Your task to perform on an android device: Open the calendar app, open the side menu, and click the "Day" option Image 0: 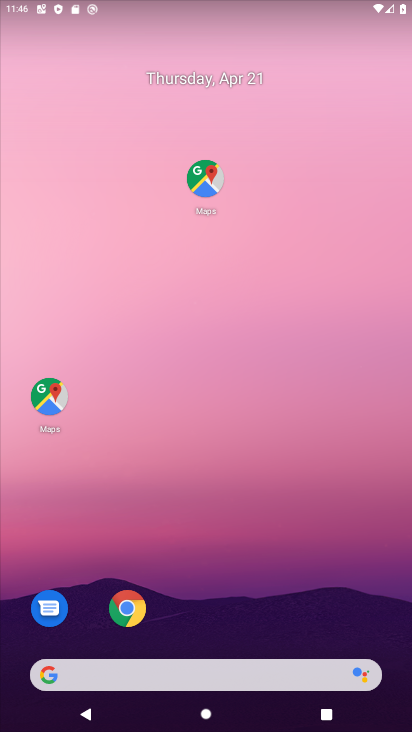
Step 0: drag from (297, 691) to (153, 66)
Your task to perform on an android device: Open the calendar app, open the side menu, and click the "Day" option Image 1: 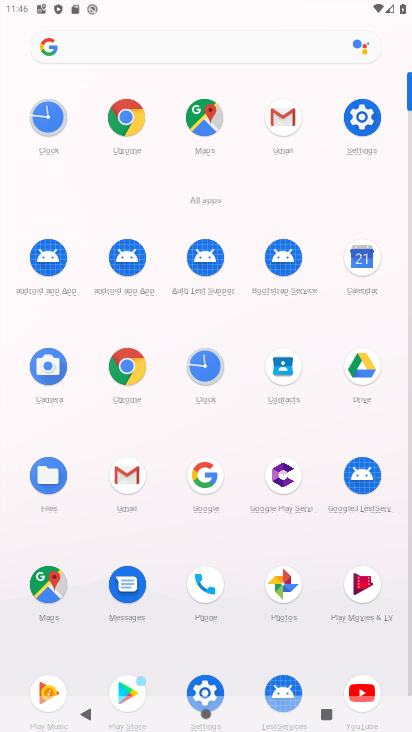
Step 1: click (350, 127)
Your task to perform on an android device: Open the calendar app, open the side menu, and click the "Day" option Image 2: 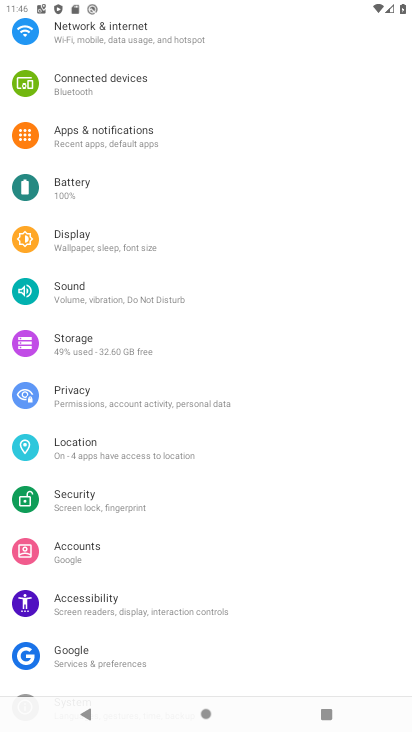
Step 2: press home button
Your task to perform on an android device: Open the calendar app, open the side menu, and click the "Day" option Image 3: 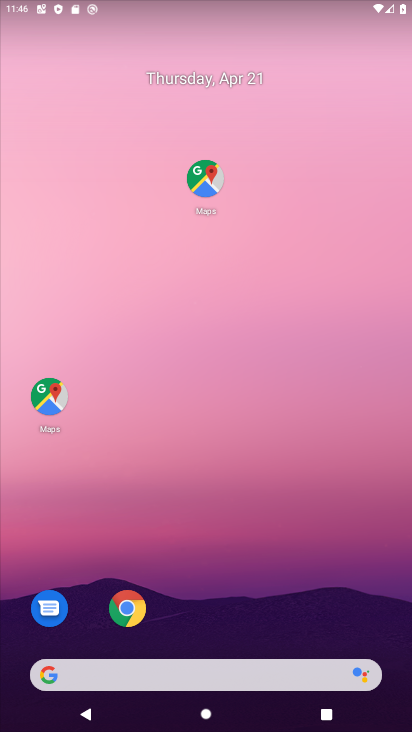
Step 3: drag from (134, 135) to (176, 29)
Your task to perform on an android device: Open the calendar app, open the side menu, and click the "Day" option Image 4: 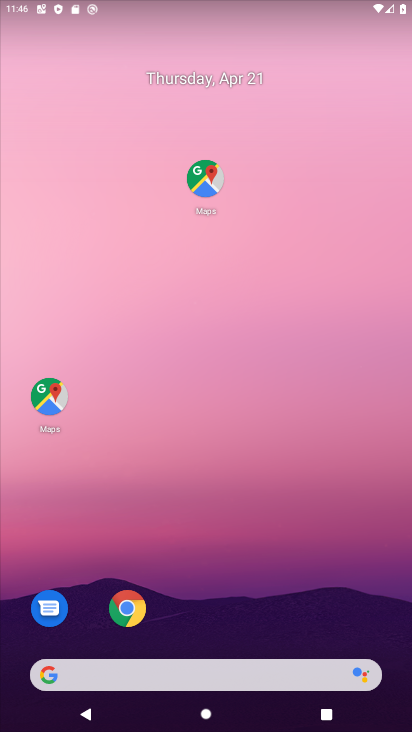
Step 4: drag from (183, 488) to (101, 45)
Your task to perform on an android device: Open the calendar app, open the side menu, and click the "Day" option Image 5: 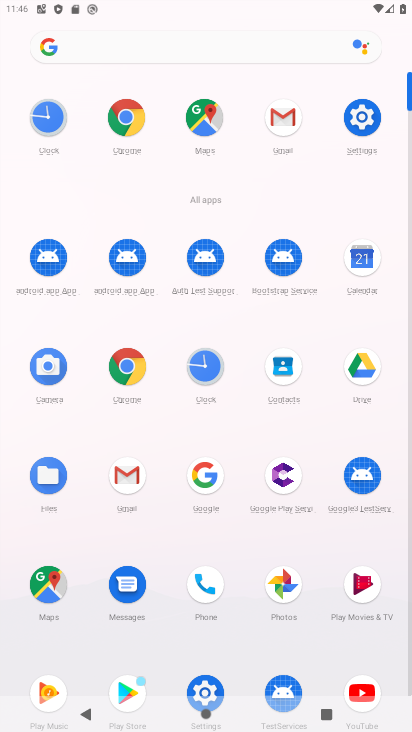
Step 5: click (360, 257)
Your task to perform on an android device: Open the calendar app, open the side menu, and click the "Day" option Image 6: 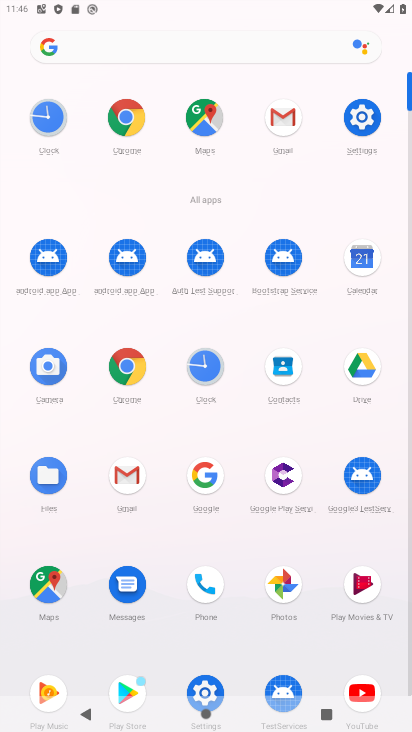
Step 6: click (361, 259)
Your task to perform on an android device: Open the calendar app, open the side menu, and click the "Day" option Image 7: 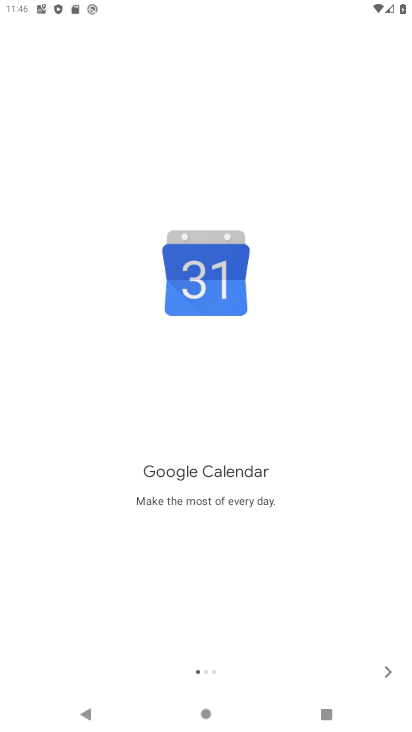
Step 7: click (388, 670)
Your task to perform on an android device: Open the calendar app, open the side menu, and click the "Day" option Image 8: 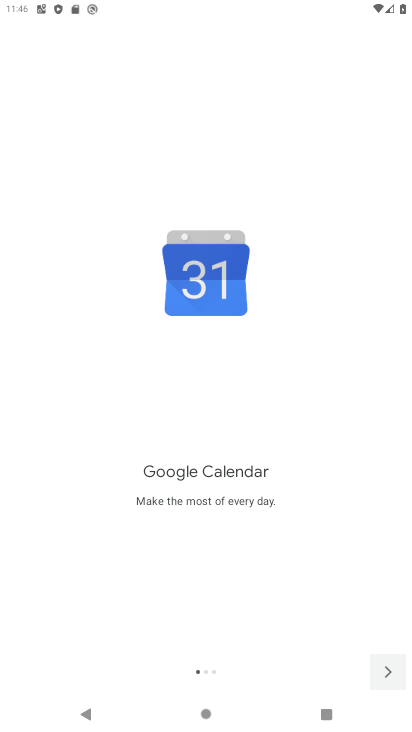
Step 8: click (389, 672)
Your task to perform on an android device: Open the calendar app, open the side menu, and click the "Day" option Image 9: 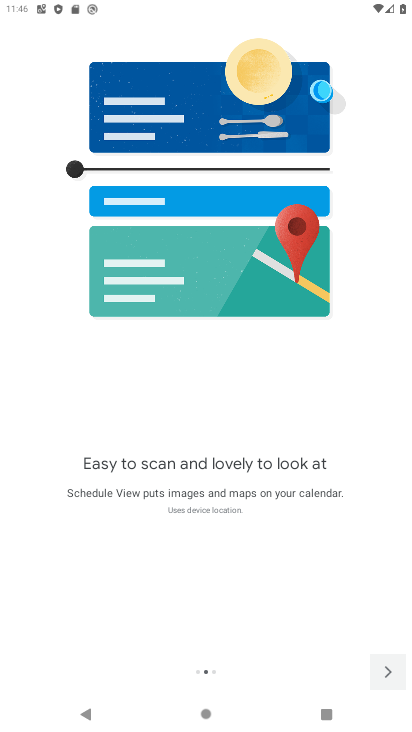
Step 9: click (384, 671)
Your task to perform on an android device: Open the calendar app, open the side menu, and click the "Day" option Image 10: 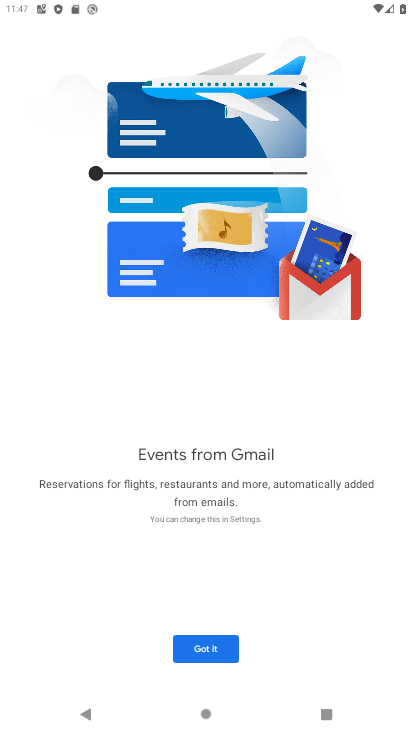
Step 10: click (199, 647)
Your task to perform on an android device: Open the calendar app, open the side menu, and click the "Day" option Image 11: 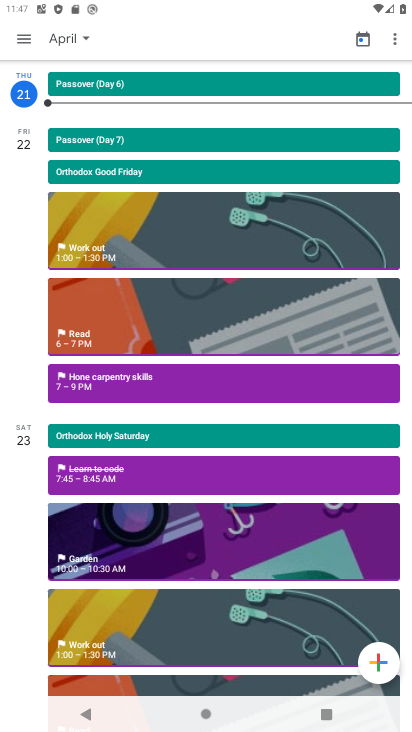
Step 11: drag from (85, 37) to (196, 410)
Your task to perform on an android device: Open the calendar app, open the side menu, and click the "Day" option Image 12: 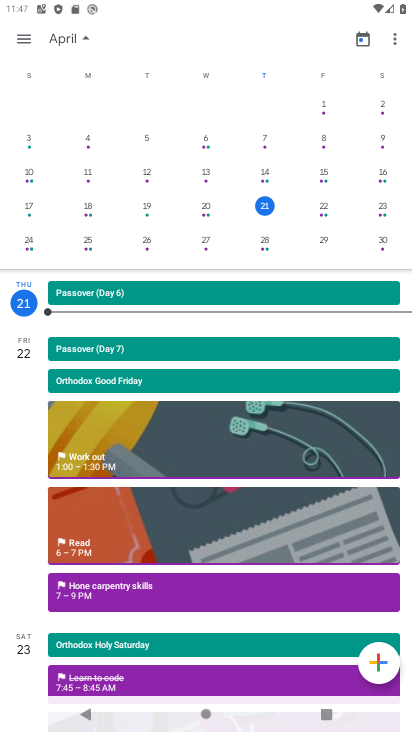
Step 12: click (29, 210)
Your task to perform on an android device: Open the calendar app, open the side menu, and click the "Day" option Image 13: 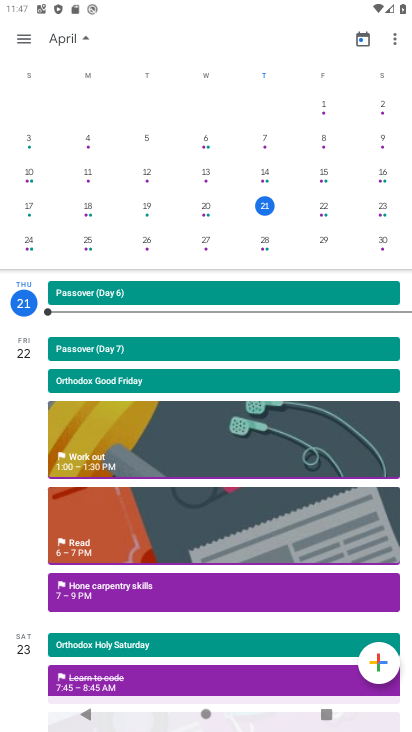
Step 13: drag from (31, 236) to (56, 175)
Your task to perform on an android device: Open the calendar app, open the side menu, and click the "Day" option Image 14: 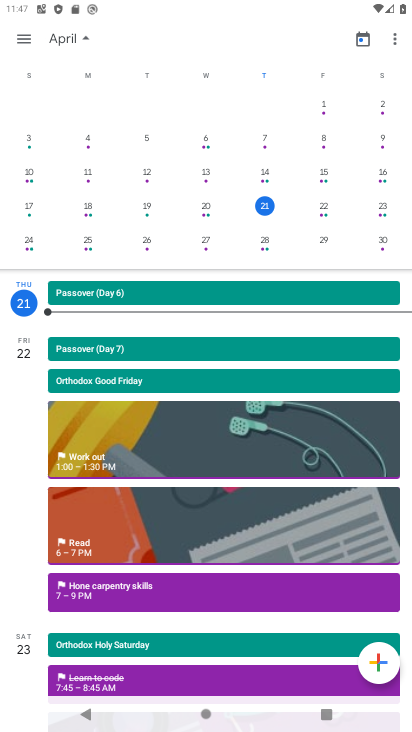
Step 14: drag from (60, 166) to (52, 106)
Your task to perform on an android device: Open the calendar app, open the side menu, and click the "Day" option Image 15: 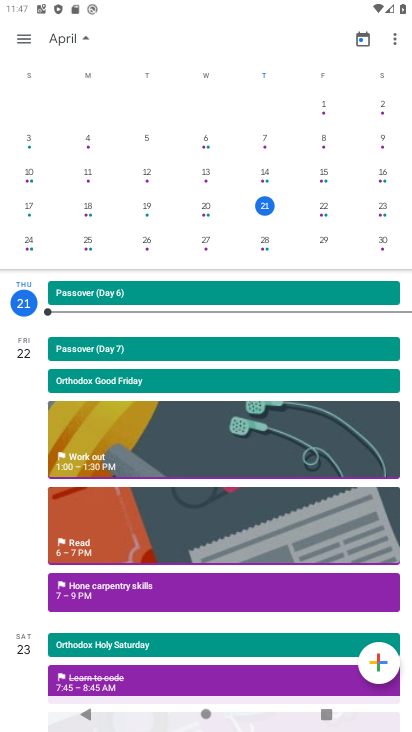
Step 15: drag from (46, 152) to (63, 118)
Your task to perform on an android device: Open the calendar app, open the side menu, and click the "Day" option Image 16: 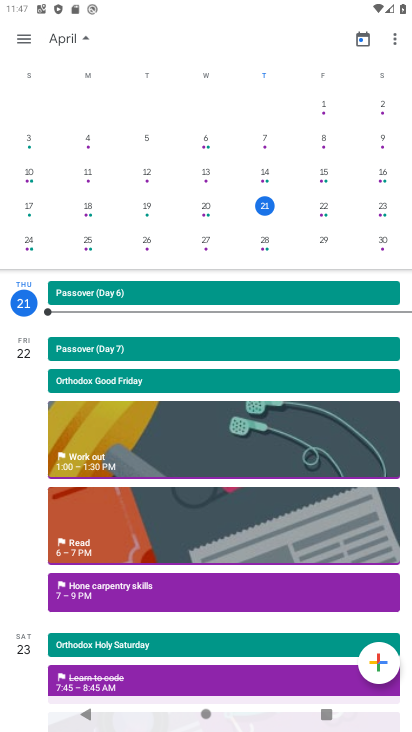
Step 16: drag from (199, 181) to (43, 161)
Your task to perform on an android device: Open the calendar app, open the side menu, and click the "Day" option Image 17: 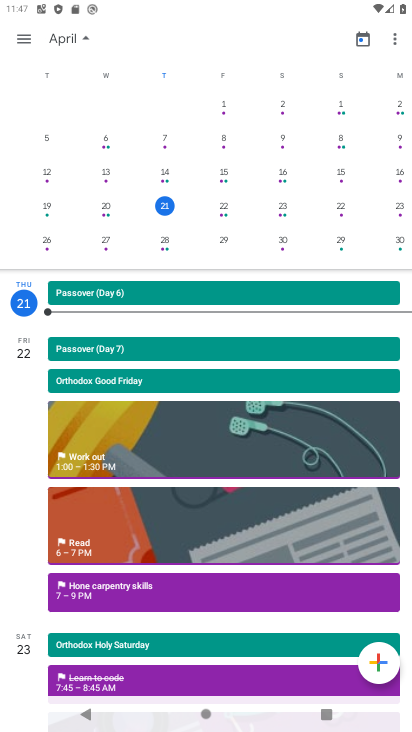
Step 17: drag from (47, 186) to (18, 254)
Your task to perform on an android device: Open the calendar app, open the side menu, and click the "Day" option Image 18: 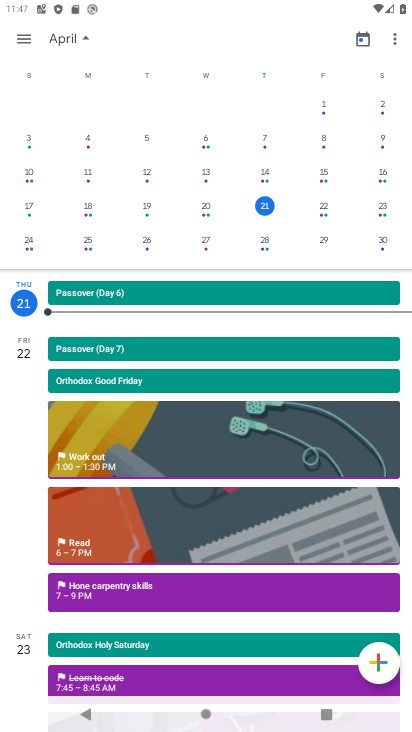
Step 18: drag from (260, 196) to (121, 211)
Your task to perform on an android device: Open the calendar app, open the side menu, and click the "Day" option Image 19: 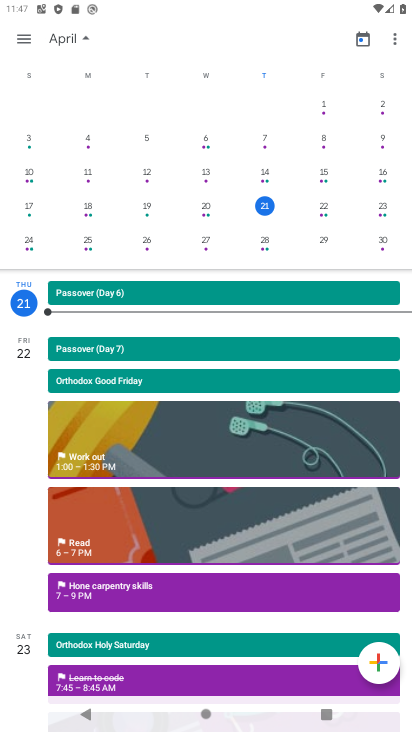
Step 19: drag from (286, 200) to (51, 208)
Your task to perform on an android device: Open the calendar app, open the side menu, and click the "Day" option Image 20: 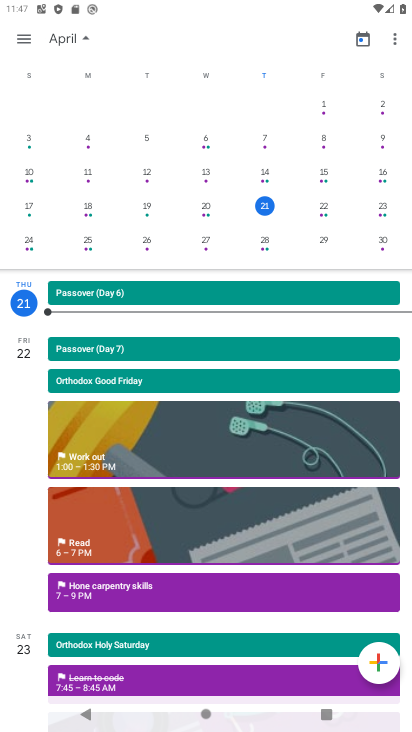
Step 20: click (239, 214)
Your task to perform on an android device: Open the calendar app, open the side menu, and click the "Day" option Image 21: 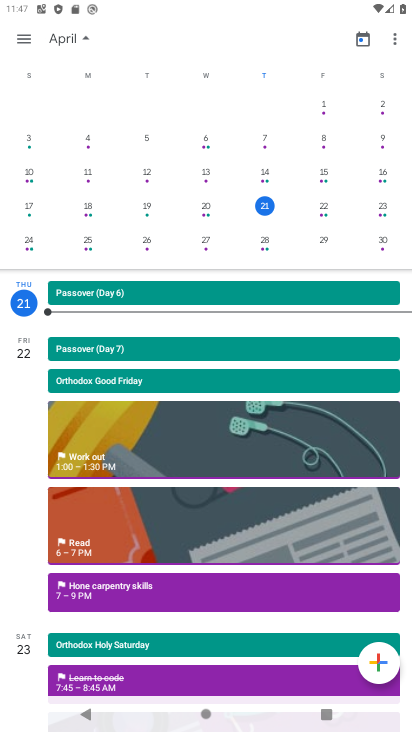
Step 21: drag from (319, 203) to (157, 163)
Your task to perform on an android device: Open the calendar app, open the side menu, and click the "Day" option Image 22: 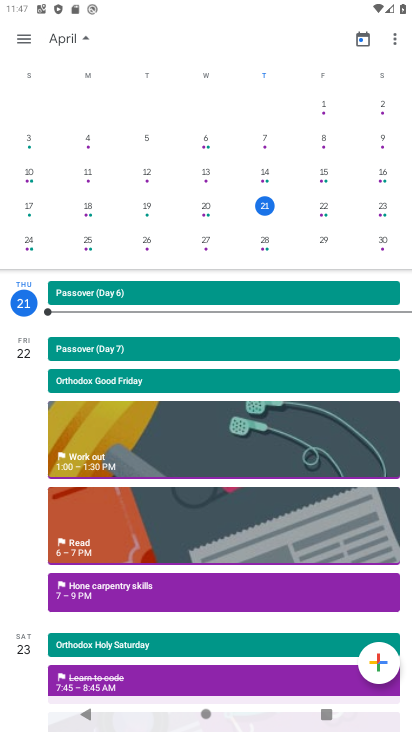
Step 22: drag from (107, 178) to (69, 192)
Your task to perform on an android device: Open the calendar app, open the side menu, and click the "Day" option Image 23: 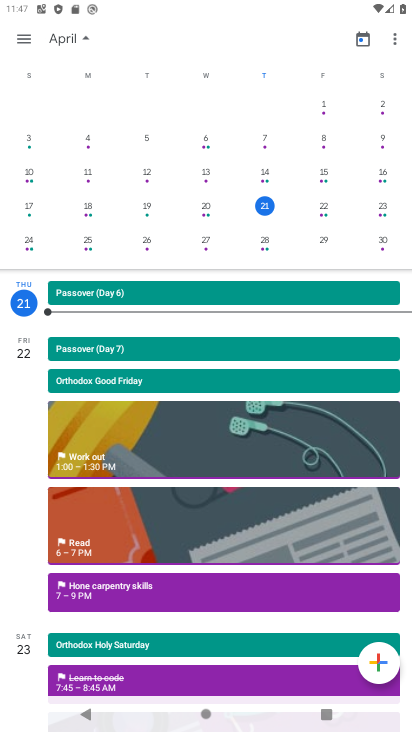
Step 23: drag from (70, 186) to (104, 165)
Your task to perform on an android device: Open the calendar app, open the side menu, and click the "Day" option Image 24: 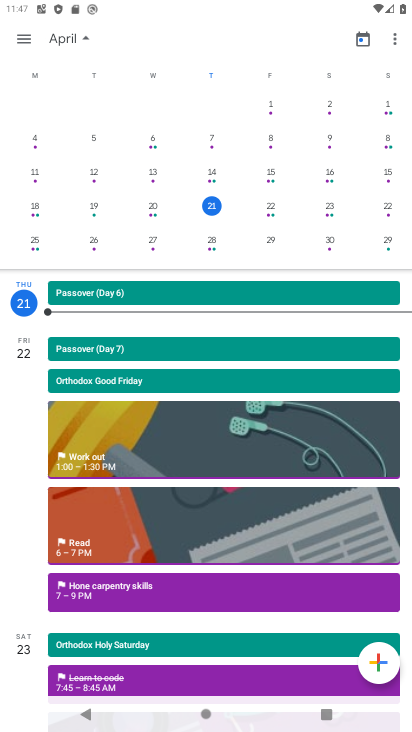
Step 24: click (29, 240)
Your task to perform on an android device: Open the calendar app, open the side menu, and click the "Day" option Image 25: 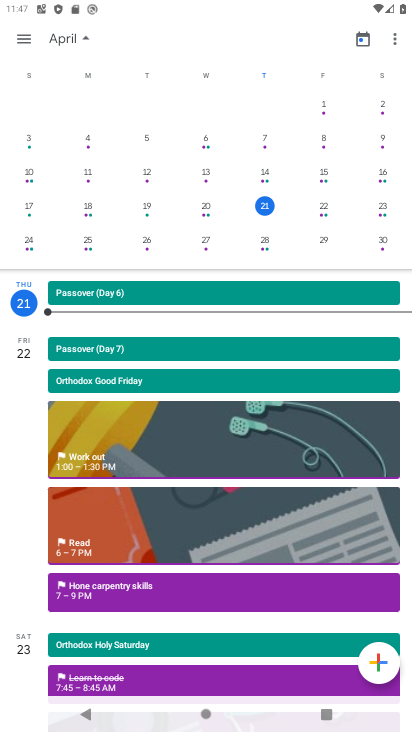
Step 25: drag from (85, 172) to (14, 229)
Your task to perform on an android device: Open the calendar app, open the side menu, and click the "Day" option Image 26: 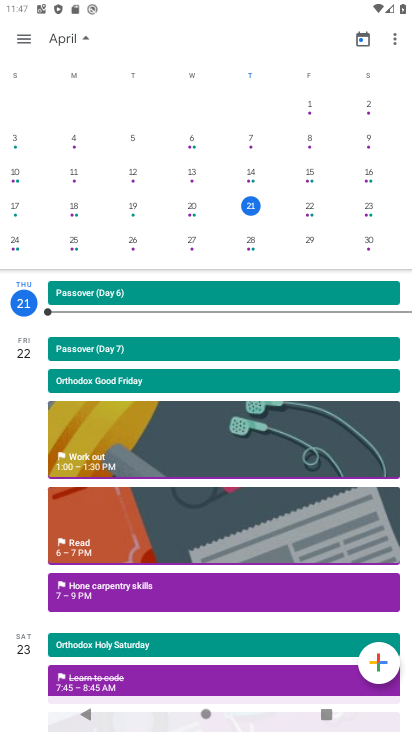
Step 26: click (8, 159)
Your task to perform on an android device: Open the calendar app, open the side menu, and click the "Day" option Image 27: 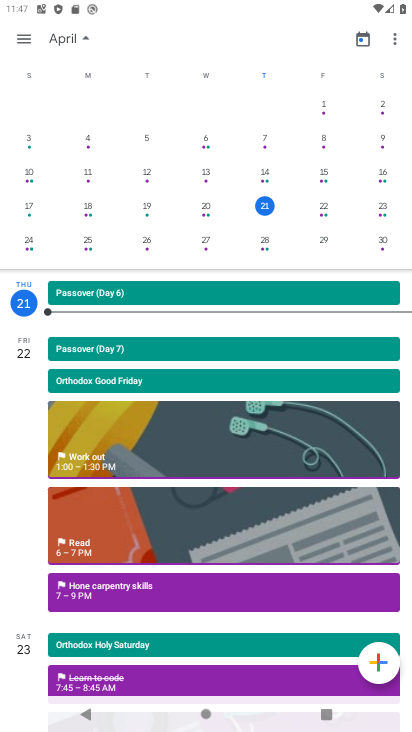
Step 27: click (12, 168)
Your task to perform on an android device: Open the calendar app, open the side menu, and click the "Day" option Image 28: 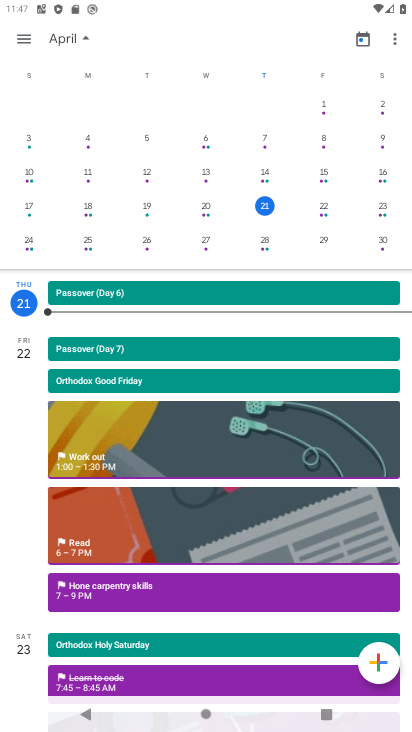
Step 28: drag from (184, 218) to (28, 191)
Your task to perform on an android device: Open the calendar app, open the side menu, and click the "Day" option Image 29: 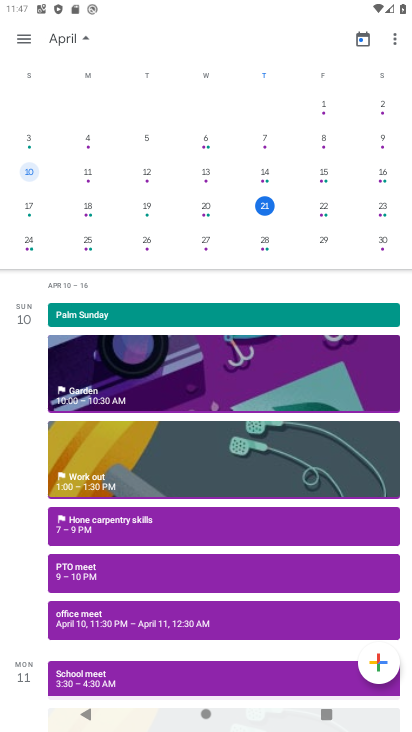
Step 29: drag from (281, 213) to (15, 211)
Your task to perform on an android device: Open the calendar app, open the side menu, and click the "Day" option Image 30: 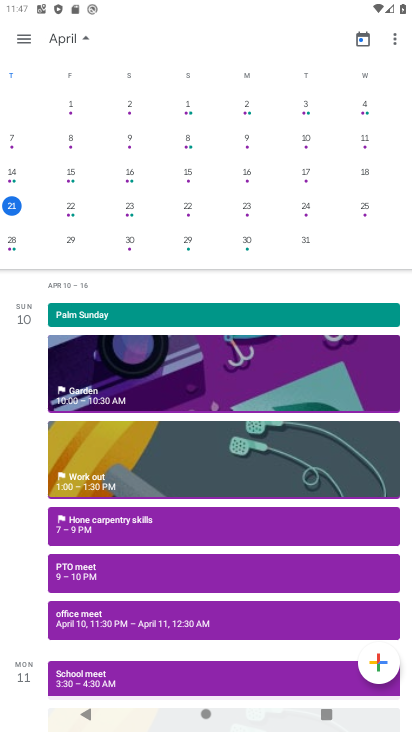
Step 30: drag from (228, 210) to (38, 167)
Your task to perform on an android device: Open the calendar app, open the side menu, and click the "Day" option Image 31: 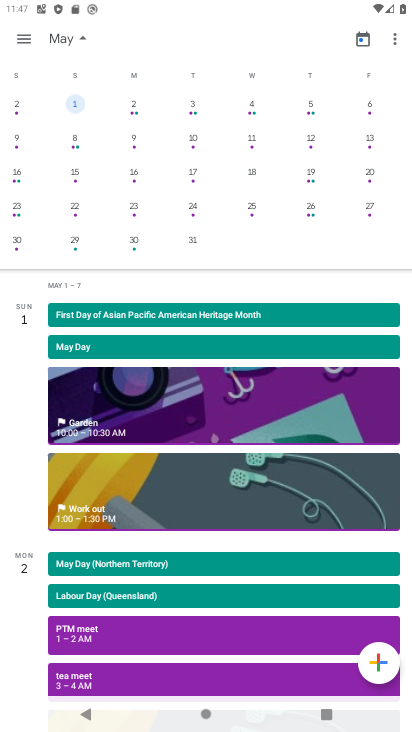
Step 31: drag from (247, 248) to (19, 158)
Your task to perform on an android device: Open the calendar app, open the side menu, and click the "Day" option Image 32: 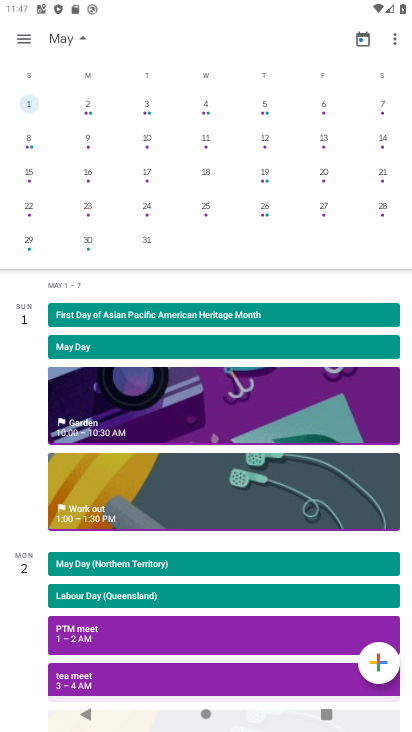
Step 32: drag from (22, 28) to (14, 249)
Your task to perform on an android device: Open the calendar app, open the side menu, and click the "Day" option Image 33: 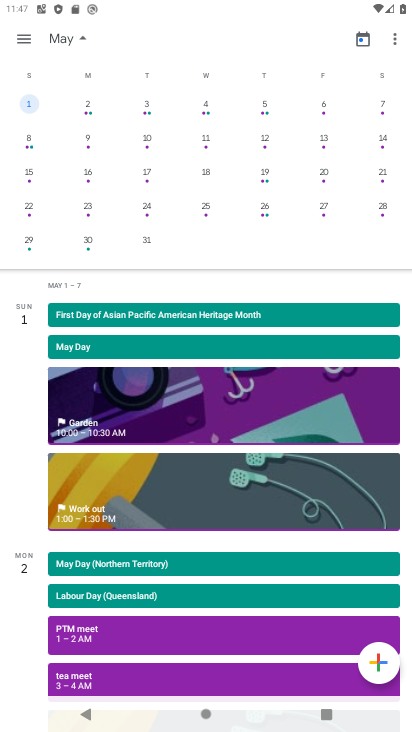
Step 33: drag from (24, 31) to (23, 231)
Your task to perform on an android device: Open the calendar app, open the side menu, and click the "Day" option Image 34: 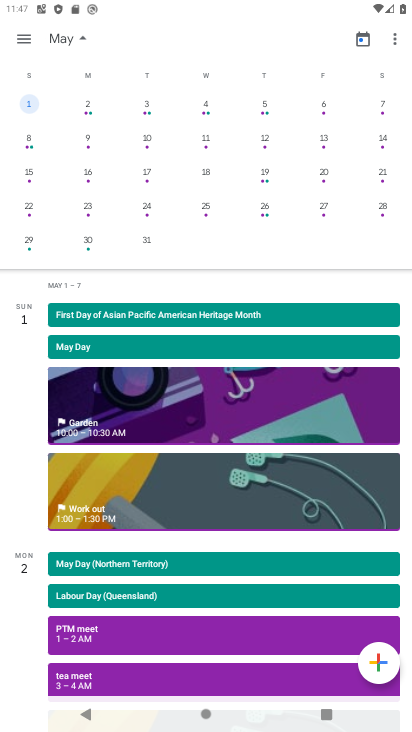
Step 34: click (30, 40)
Your task to perform on an android device: Open the calendar app, open the side menu, and click the "Day" option Image 35: 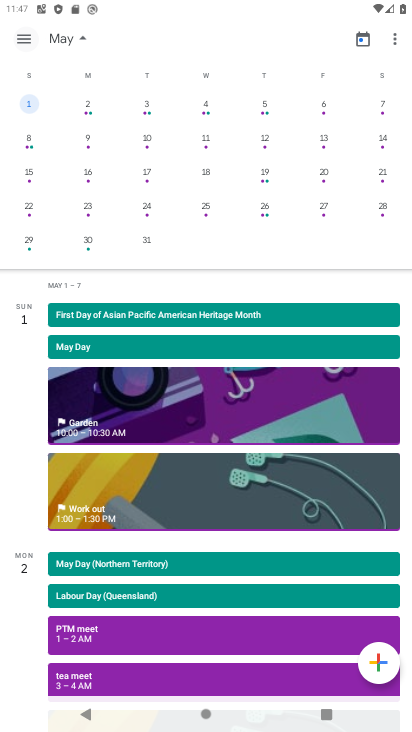
Step 35: drag from (27, 40) to (46, 130)
Your task to perform on an android device: Open the calendar app, open the side menu, and click the "Day" option Image 36: 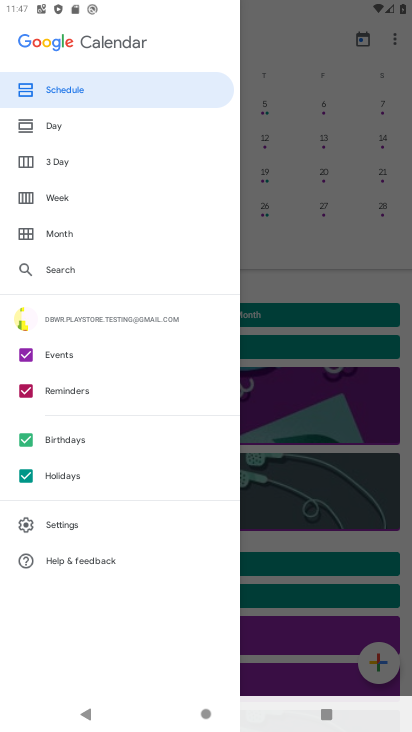
Step 36: click (50, 130)
Your task to perform on an android device: Open the calendar app, open the side menu, and click the "Day" option Image 37: 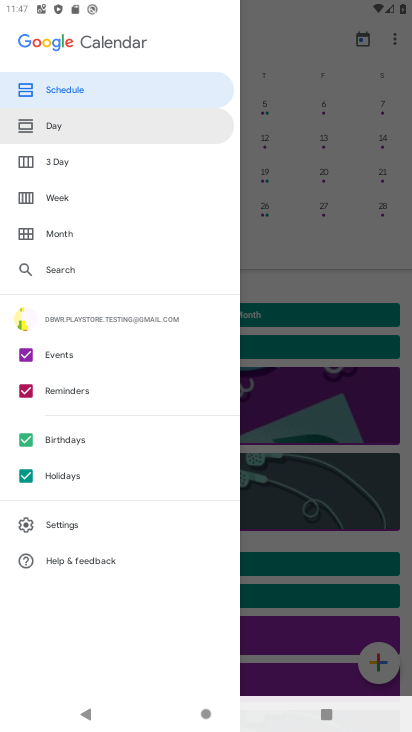
Step 37: click (50, 130)
Your task to perform on an android device: Open the calendar app, open the side menu, and click the "Day" option Image 38: 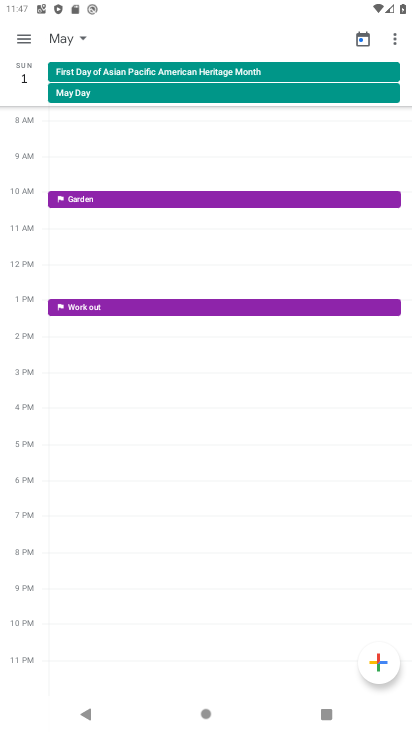
Step 38: task complete